Your task to perform on an android device: Go to Maps Image 0: 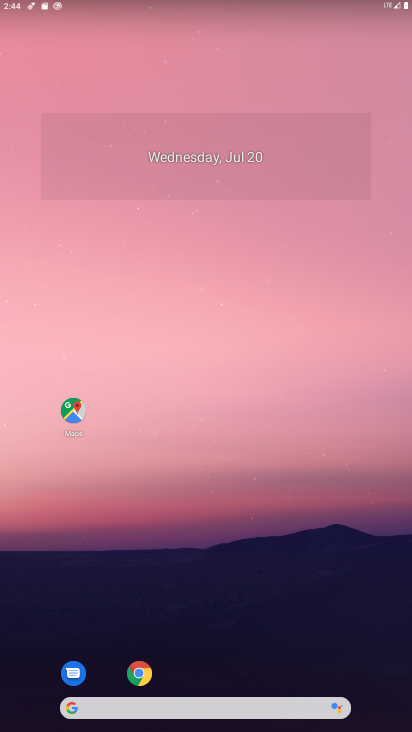
Step 0: click (67, 416)
Your task to perform on an android device: Go to Maps Image 1: 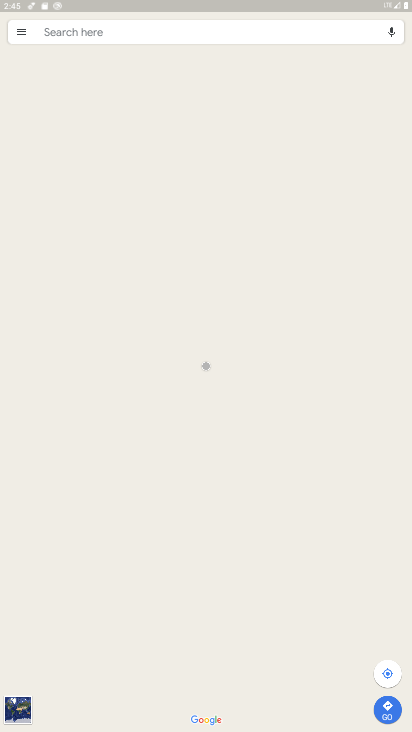
Step 1: task complete